Your task to perform on an android device: Do I have any events tomorrow? Image 0: 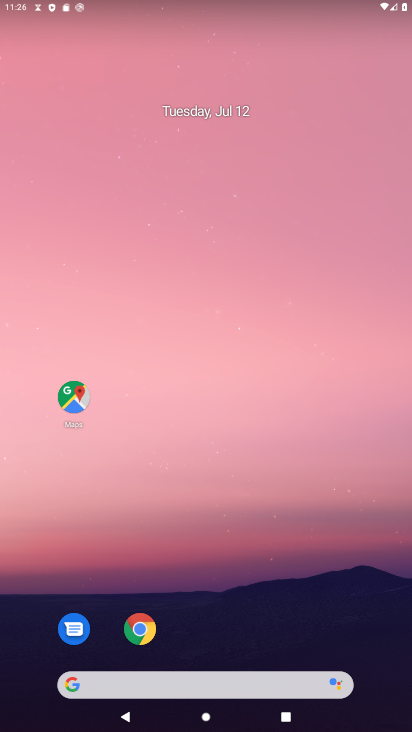
Step 0: drag from (351, 508) to (402, 69)
Your task to perform on an android device: Do I have any events tomorrow? Image 1: 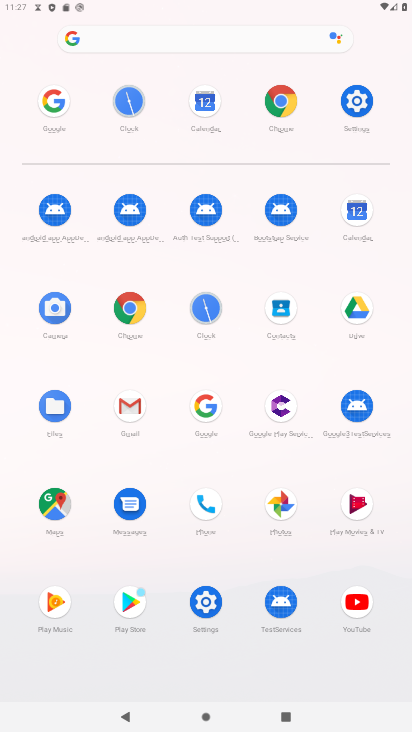
Step 1: click (361, 202)
Your task to perform on an android device: Do I have any events tomorrow? Image 2: 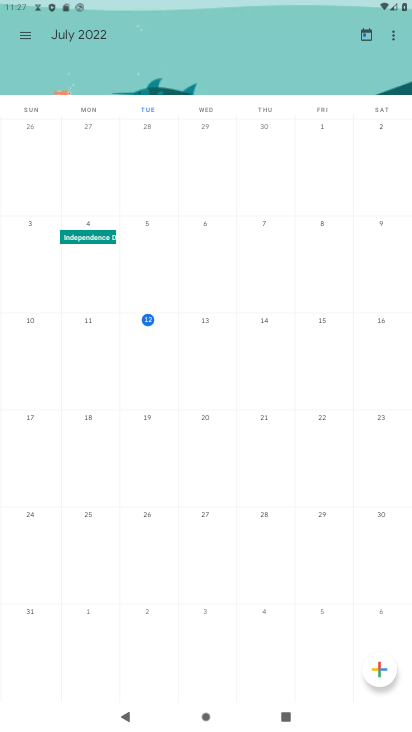
Step 2: task complete